Your task to perform on an android device: Search for seafood restaurants on Google Maps Image 0: 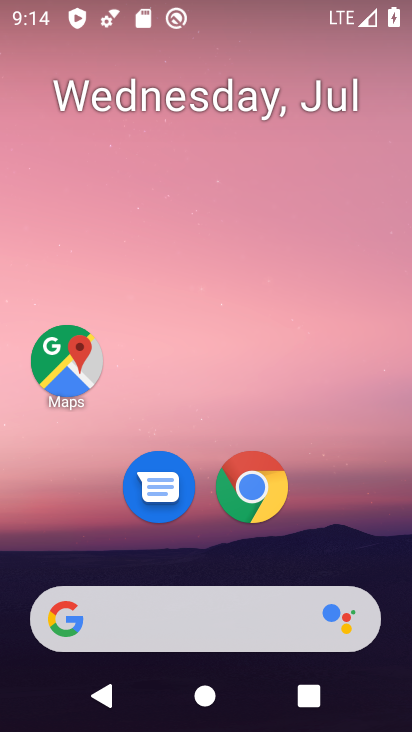
Step 0: click (30, 368)
Your task to perform on an android device: Search for seafood restaurants on Google Maps Image 1: 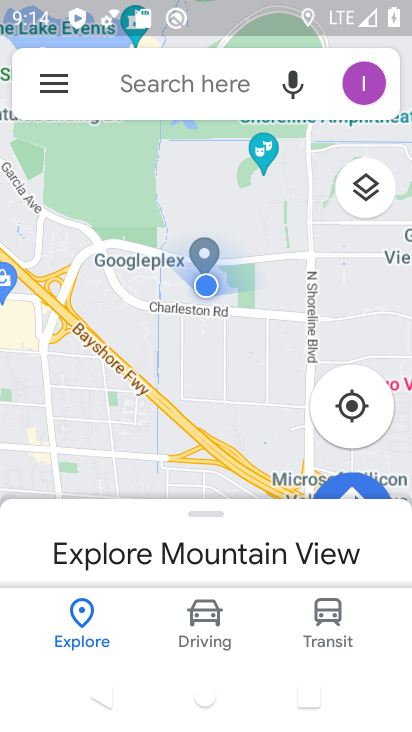
Step 1: click (199, 74)
Your task to perform on an android device: Search for seafood restaurants on Google Maps Image 2: 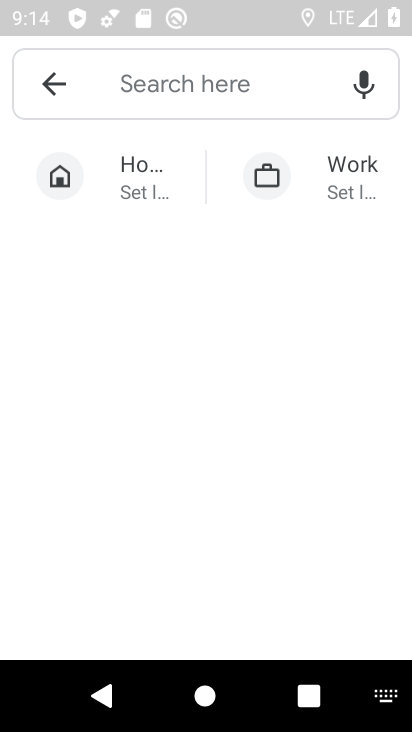
Step 2: type "seafood restaurants"
Your task to perform on an android device: Search for seafood restaurants on Google Maps Image 3: 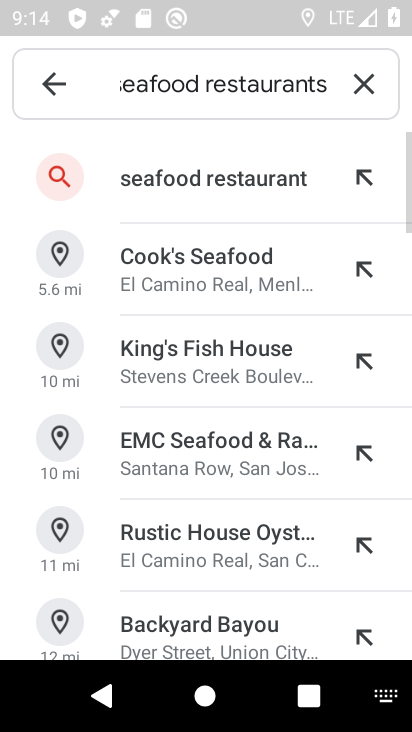
Step 3: click (189, 181)
Your task to perform on an android device: Search for seafood restaurants on Google Maps Image 4: 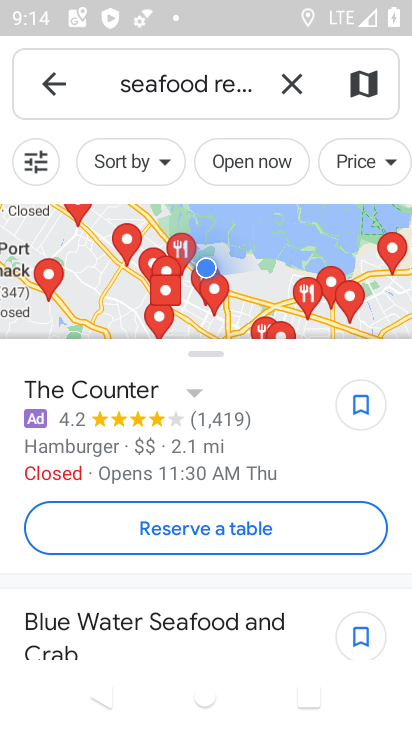
Step 4: task complete